Your task to perform on an android device: open app "Microsoft Authenticator" Image 0: 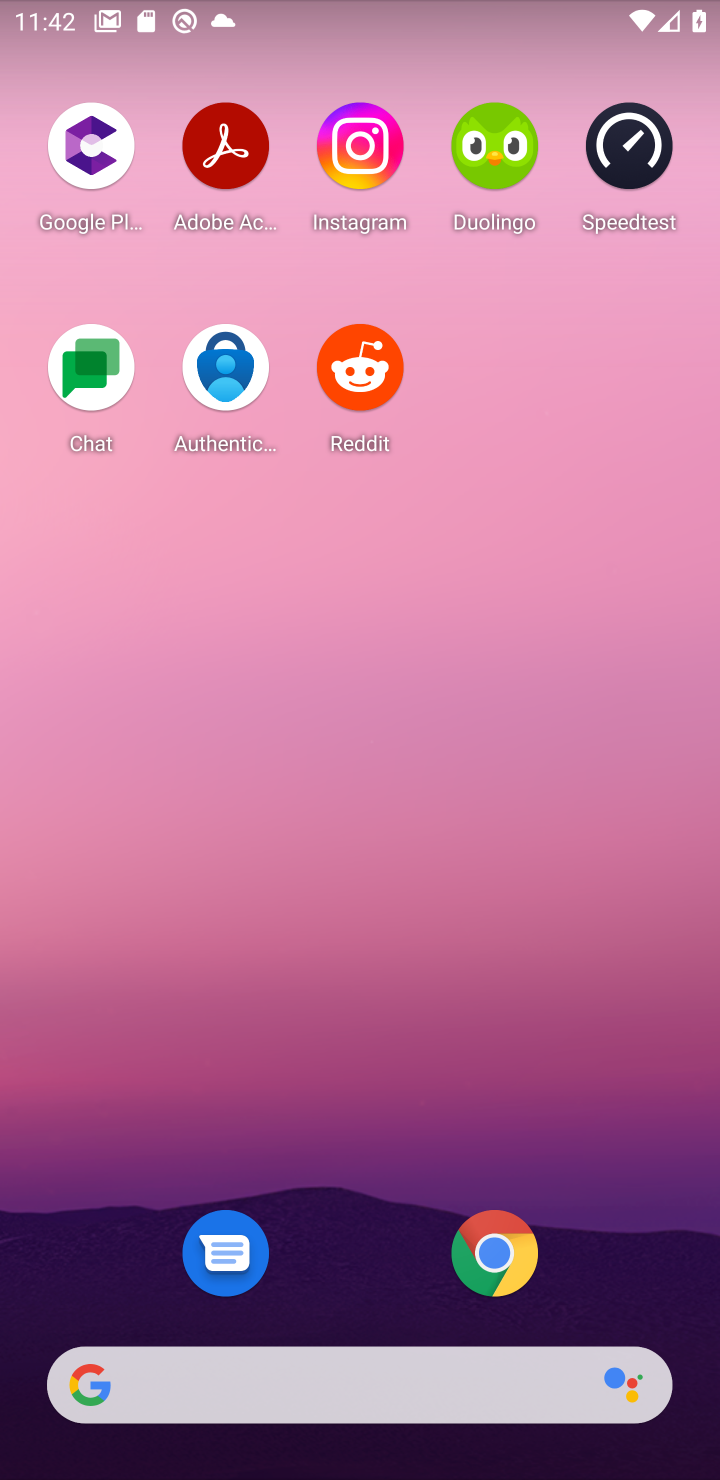
Step 0: drag from (327, 1210) to (461, 424)
Your task to perform on an android device: open app "Microsoft Authenticator" Image 1: 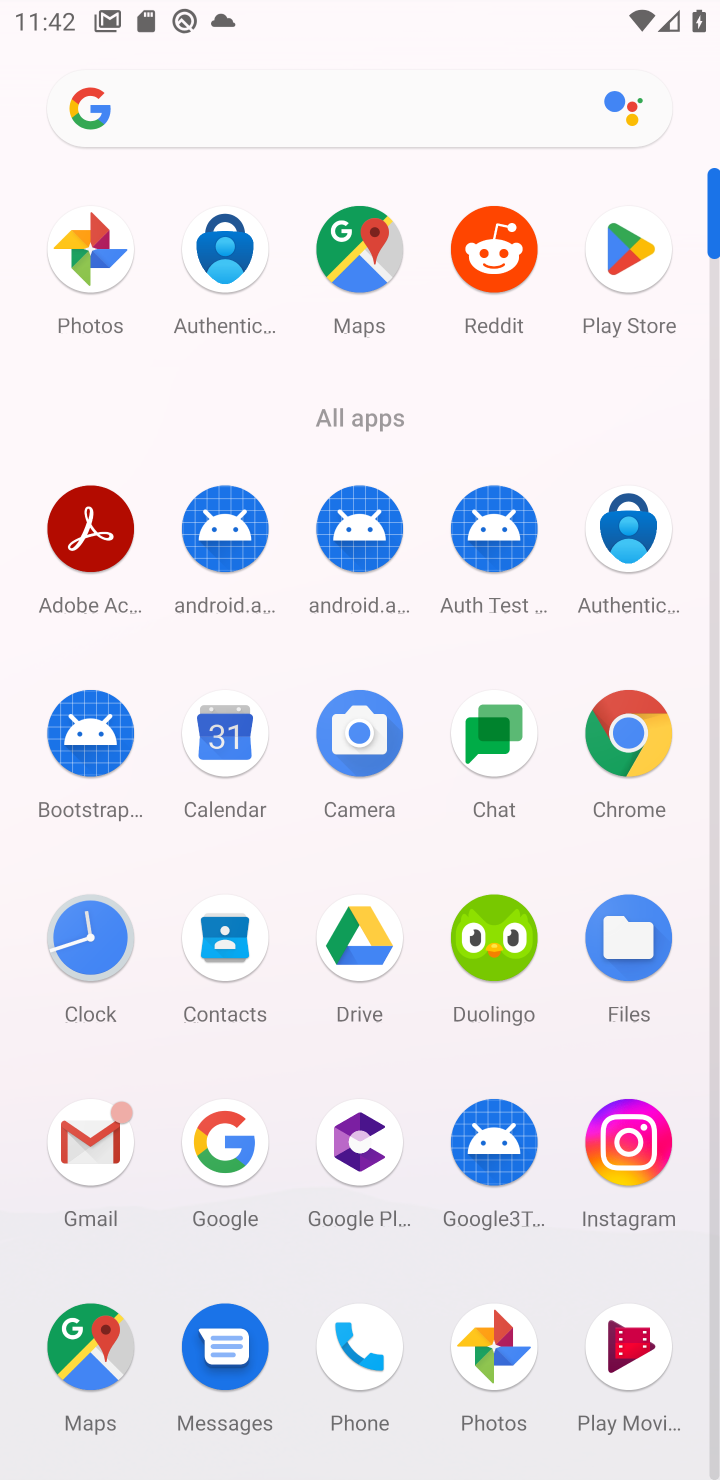
Step 1: drag from (427, 1256) to (509, 254)
Your task to perform on an android device: open app "Microsoft Authenticator" Image 2: 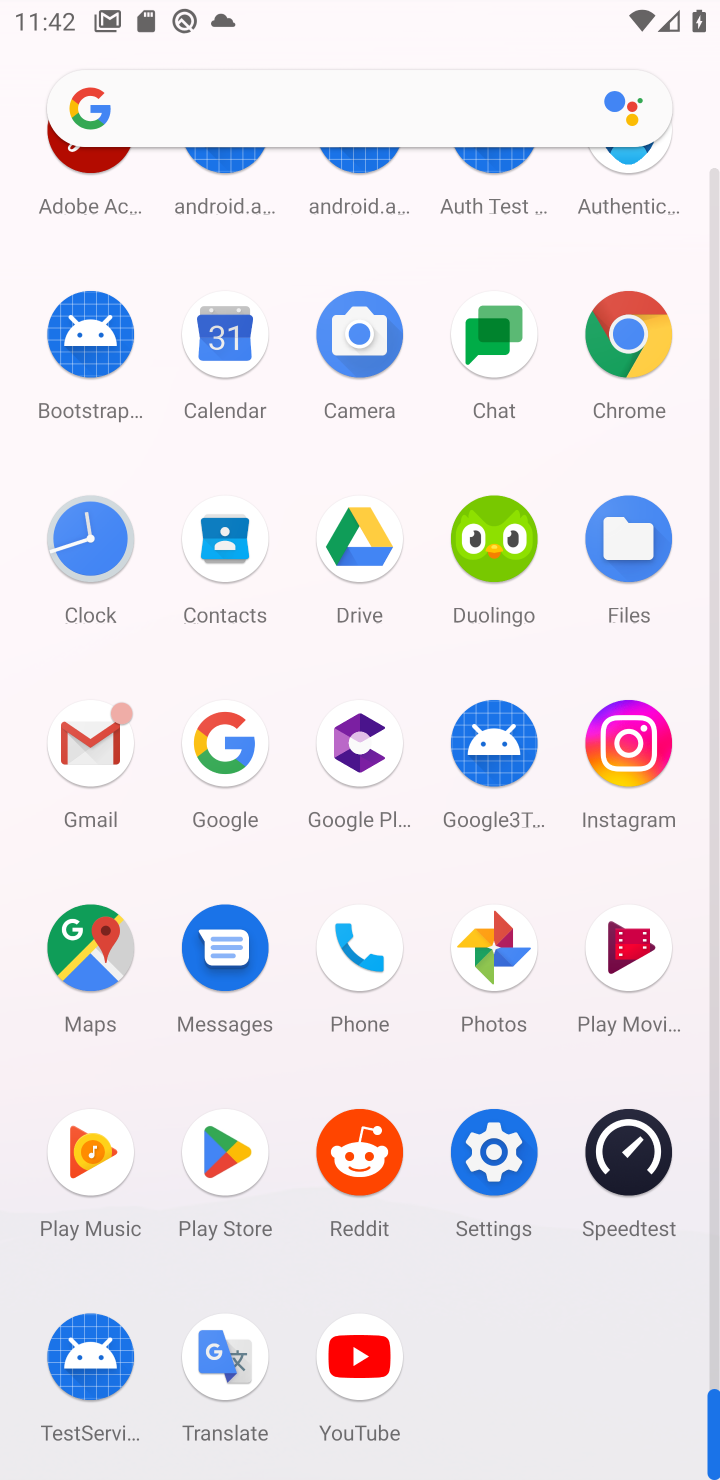
Step 2: click (224, 1147)
Your task to perform on an android device: open app "Microsoft Authenticator" Image 3: 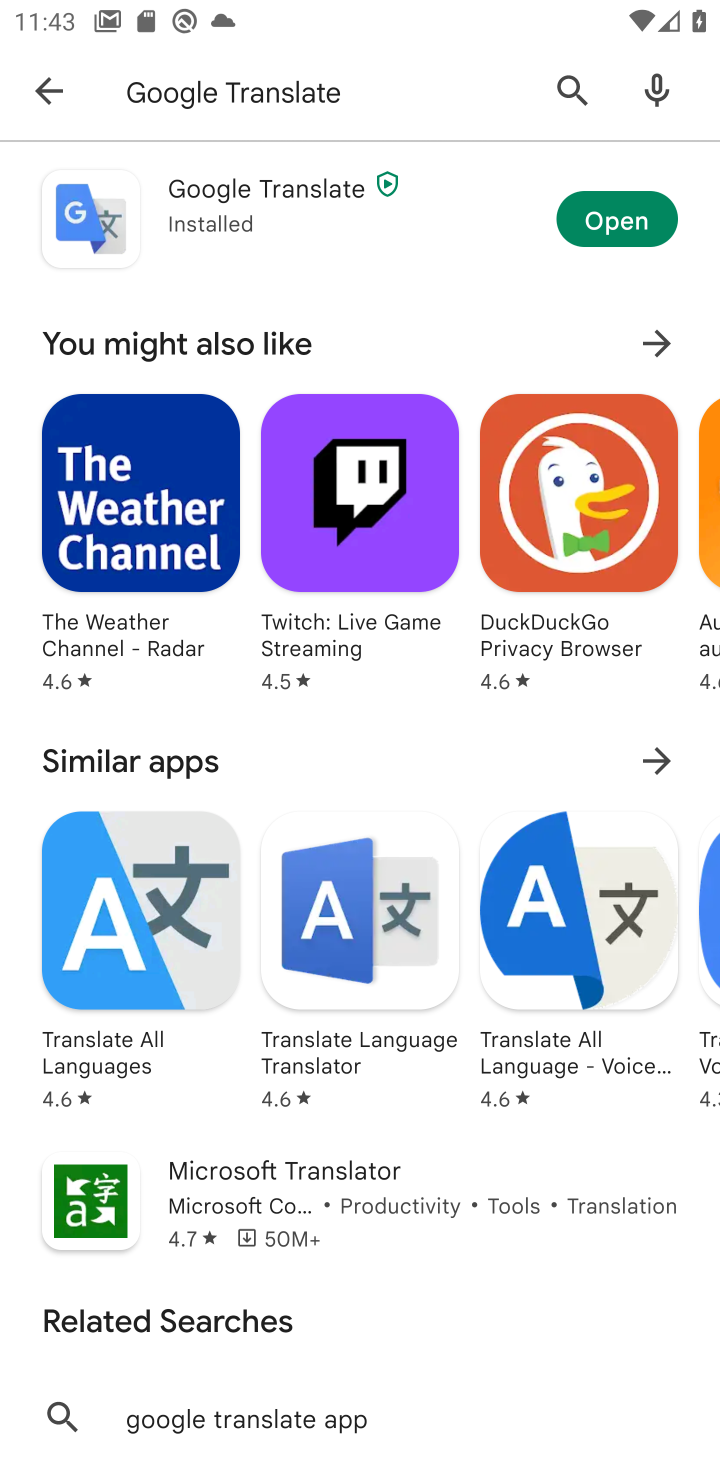
Step 3: click (289, 78)
Your task to perform on an android device: open app "Microsoft Authenticator" Image 4: 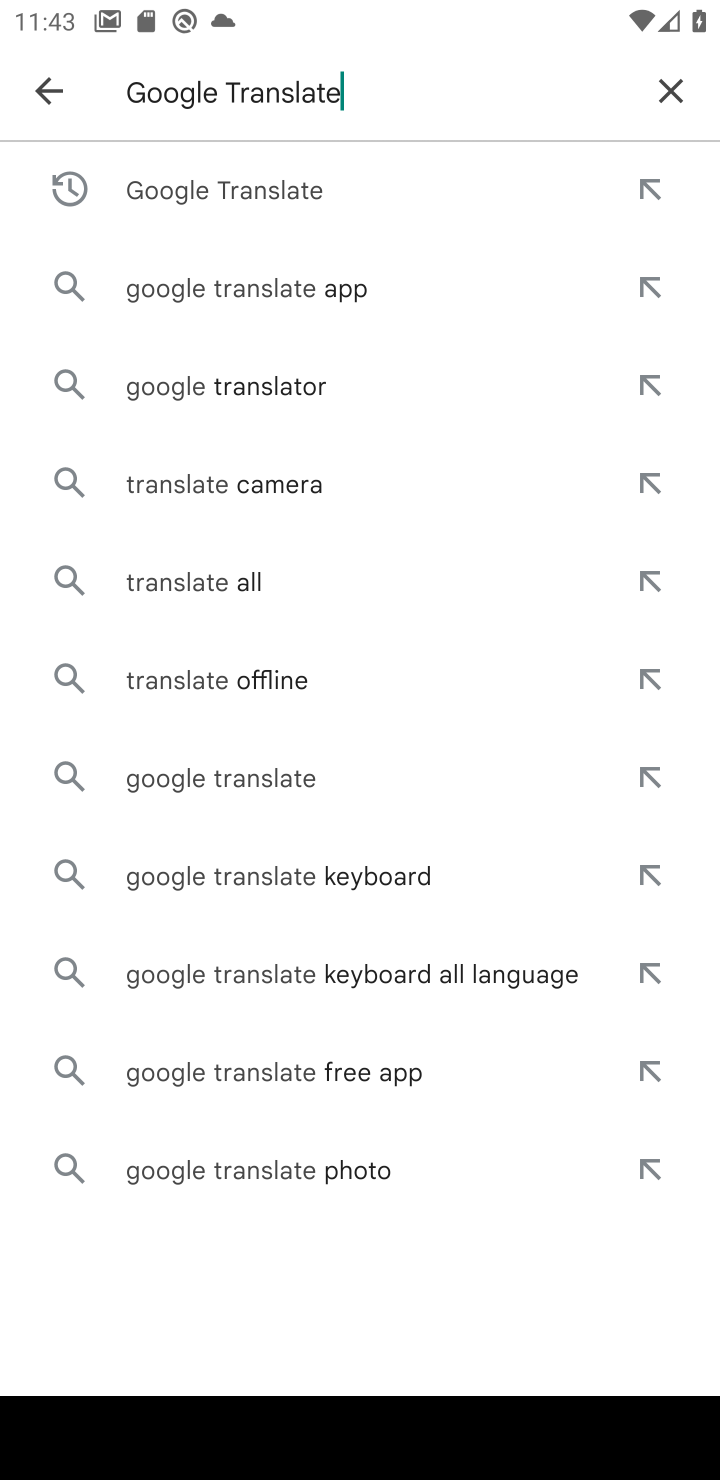
Step 4: click (653, 85)
Your task to perform on an android device: open app "Microsoft Authenticator" Image 5: 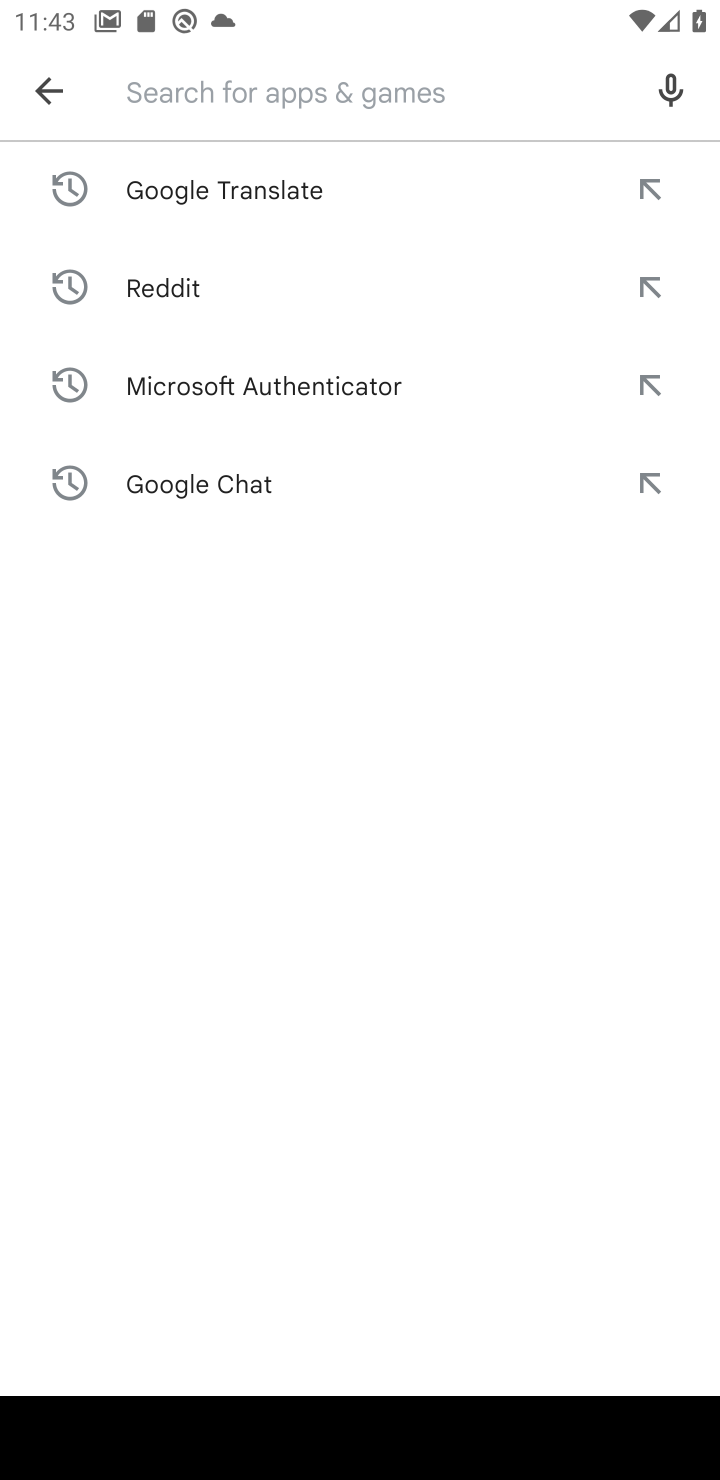
Step 5: type "Microsoft Aurthenticator"
Your task to perform on an android device: open app "Microsoft Authenticator" Image 6: 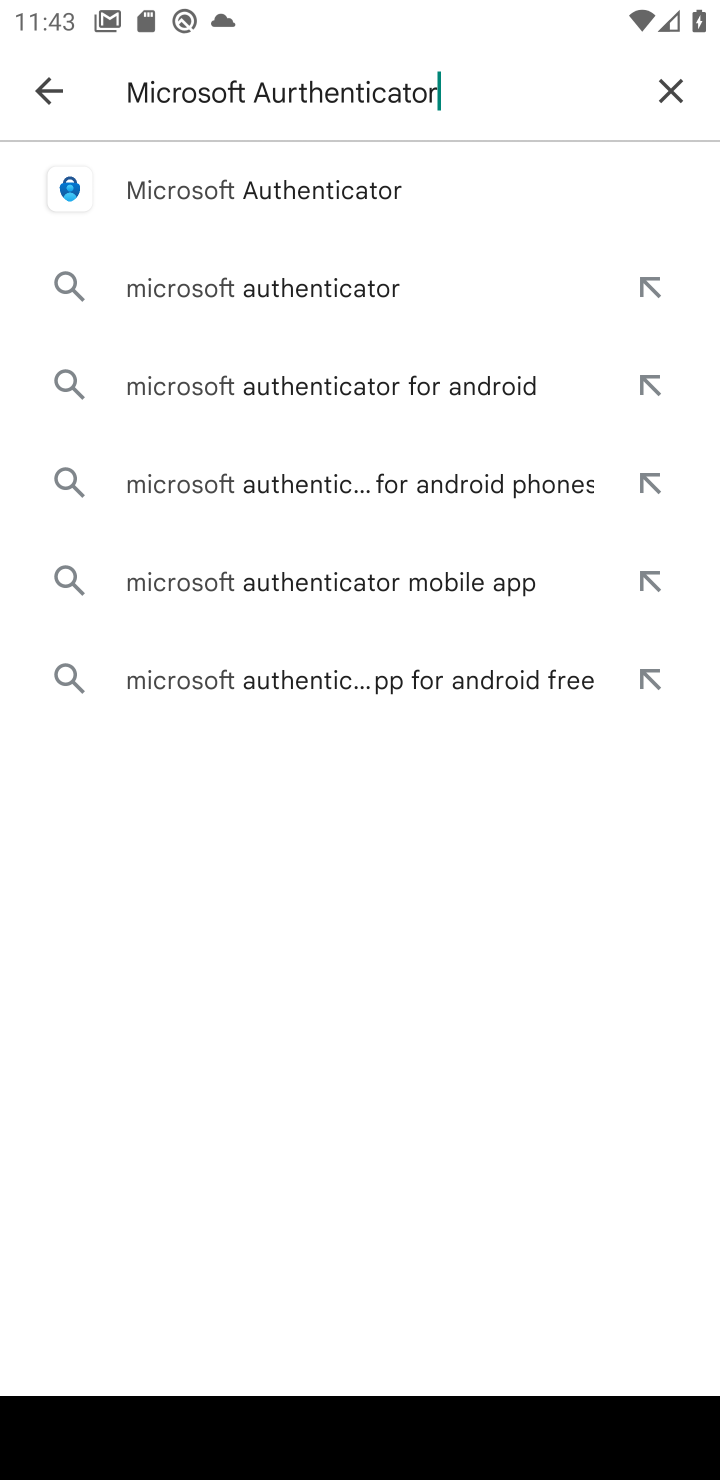
Step 6: press enter
Your task to perform on an android device: open app "Microsoft Authenticator" Image 7: 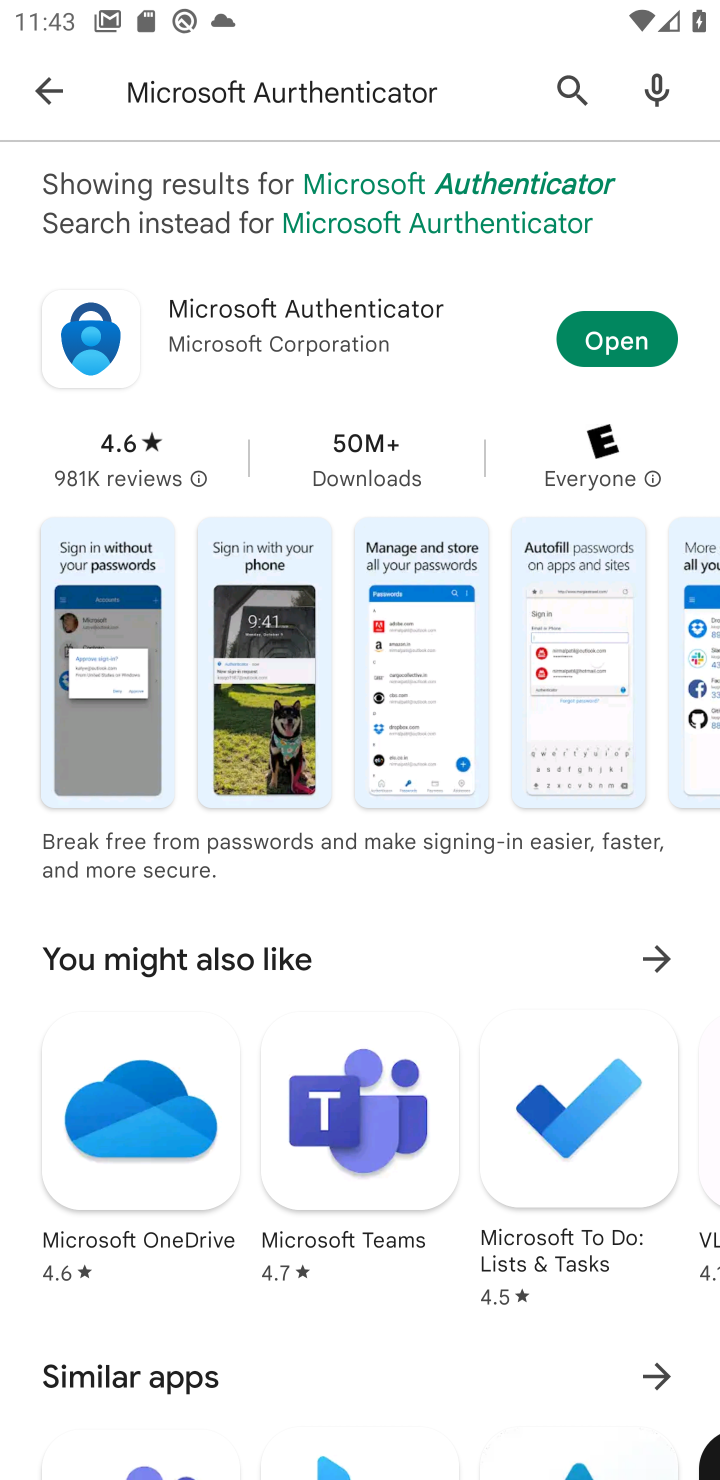
Step 7: click (619, 335)
Your task to perform on an android device: open app "Microsoft Authenticator" Image 8: 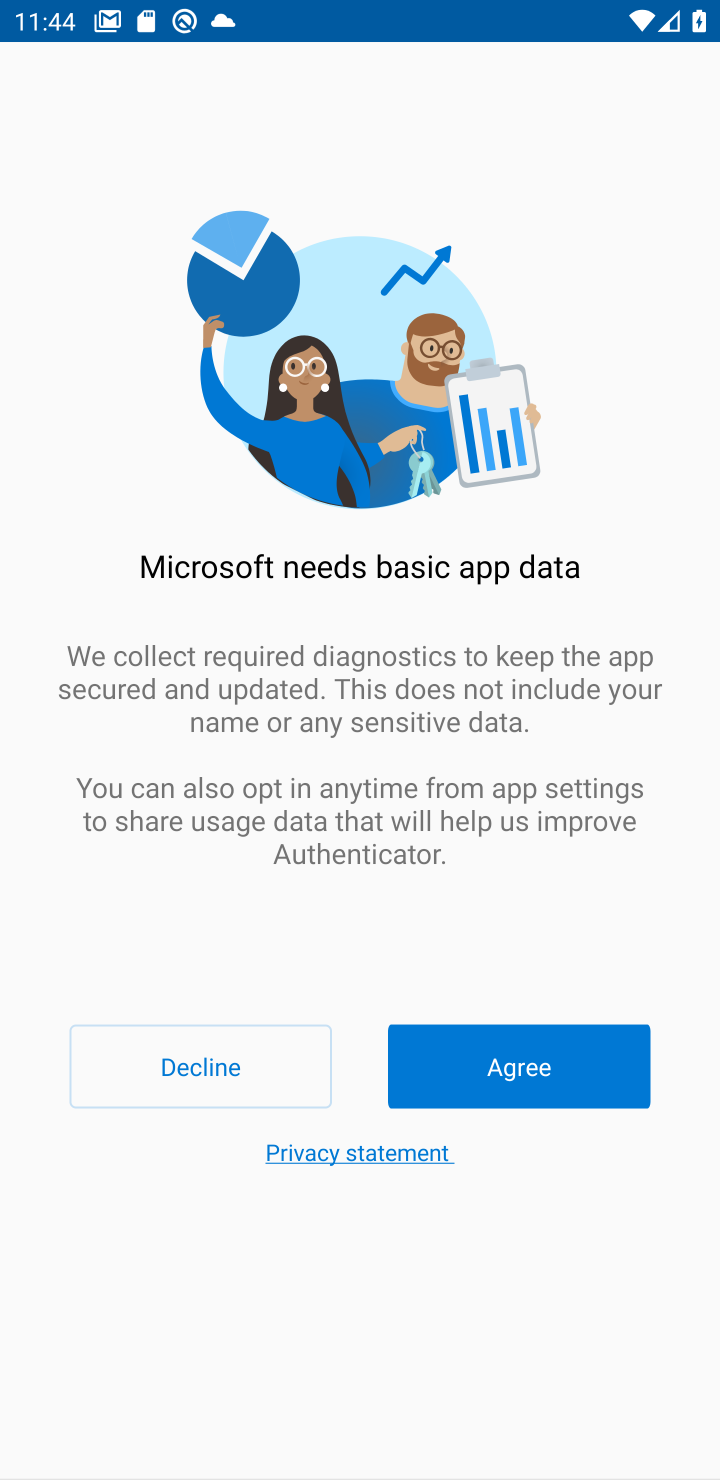
Step 8: task complete